Your task to perform on an android device: turn smart compose on in the gmail app Image 0: 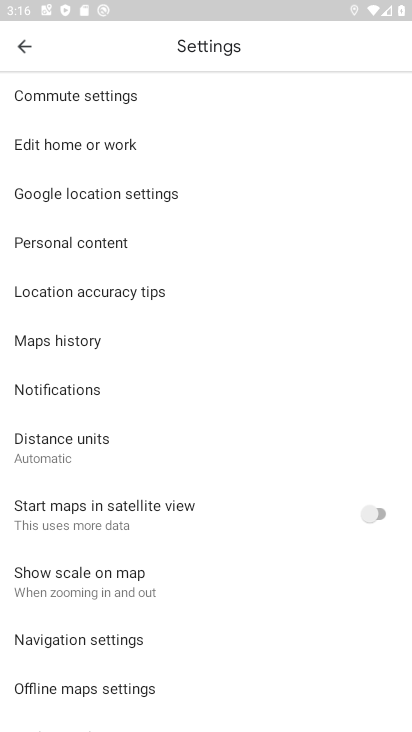
Step 0: press home button
Your task to perform on an android device: turn smart compose on in the gmail app Image 1: 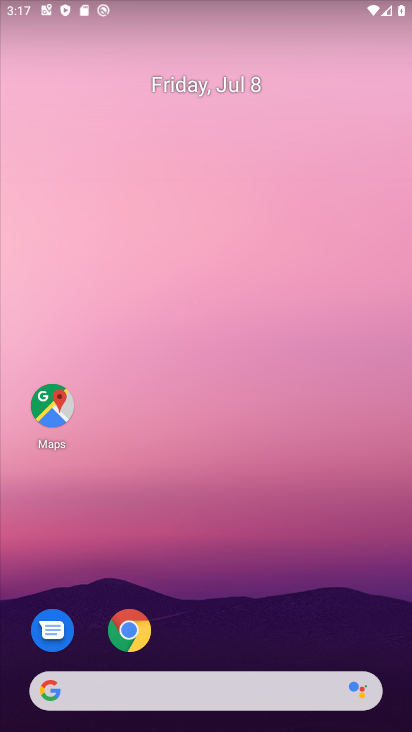
Step 1: drag from (239, 609) to (222, 191)
Your task to perform on an android device: turn smart compose on in the gmail app Image 2: 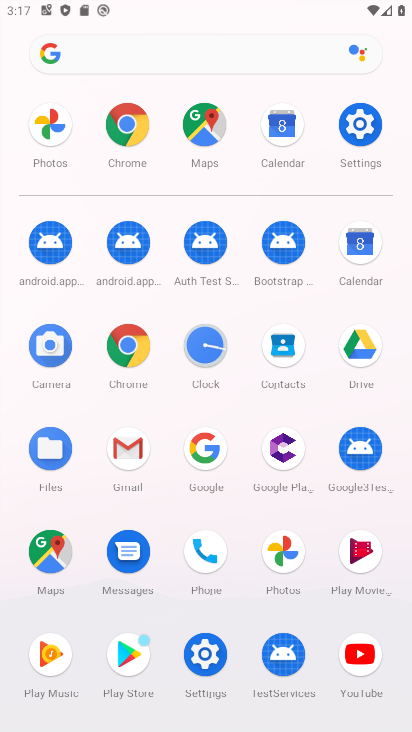
Step 2: click (134, 445)
Your task to perform on an android device: turn smart compose on in the gmail app Image 3: 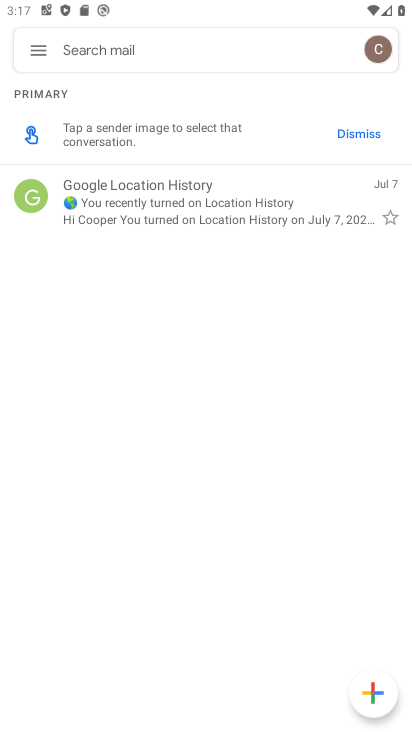
Step 3: click (42, 55)
Your task to perform on an android device: turn smart compose on in the gmail app Image 4: 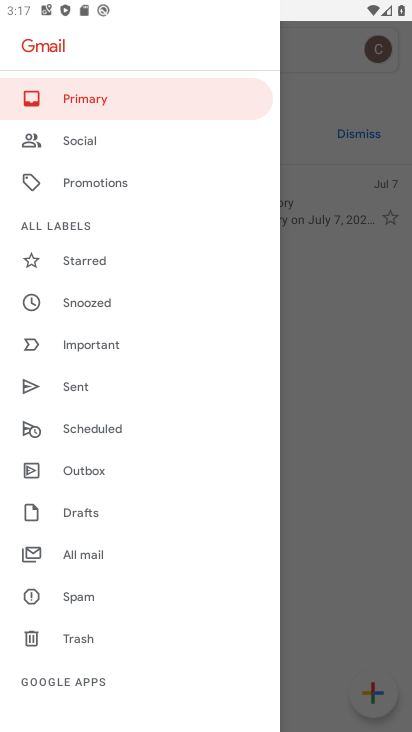
Step 4: drag from (107, 668) to (89, 464)
Your task to perform on an android device: turn smart compose on in the gmail app Image 5: 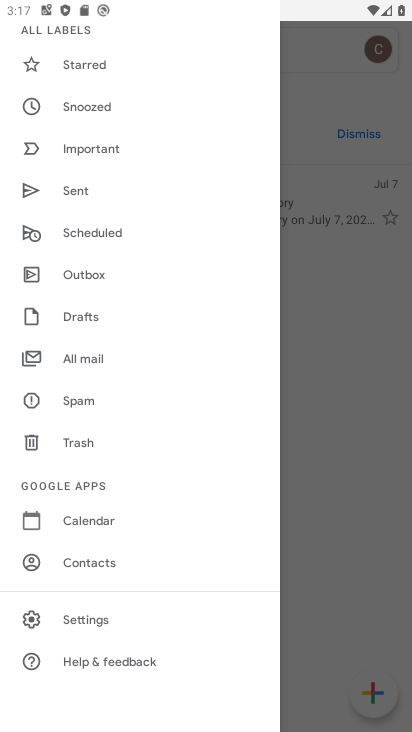
Step 5: click (75, 625)
Your task to perform on an android device: turn smart compose on in the gmail app Image 6: 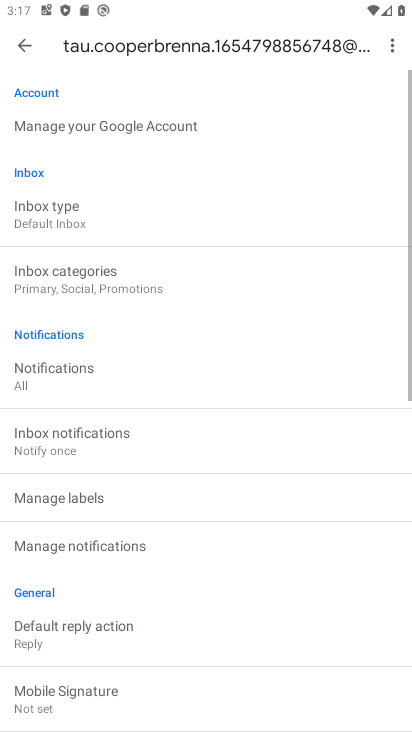
Step 6: drag from (108, 579) to (103, 392)
Your task to perform on an android device: turn smart compose on in the gmail app Image 7: 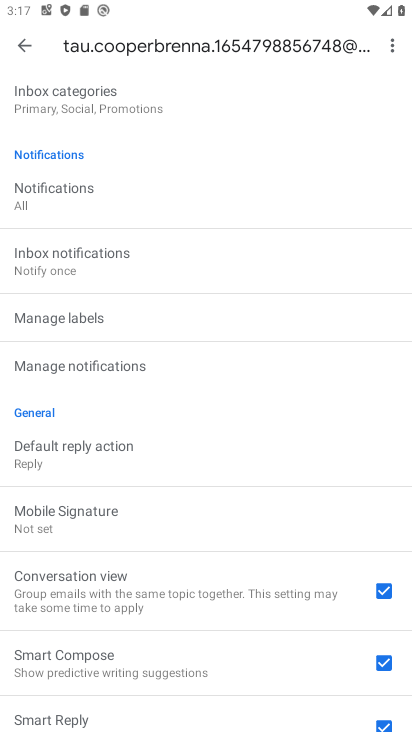
Step 7: click (379, 662)
Your task to perform on an android device: turn smart compose on in the gmail app Image 8: 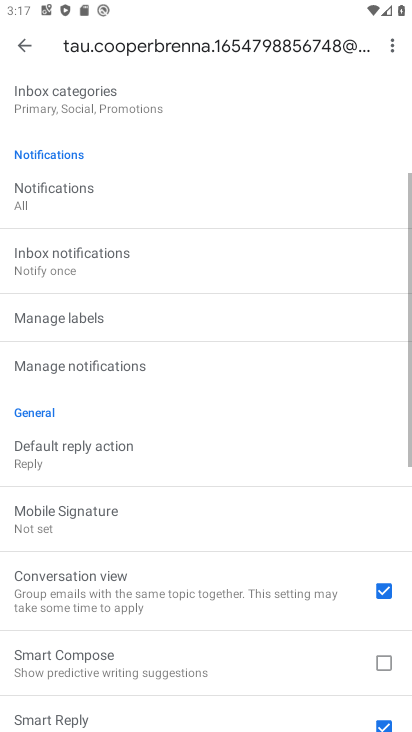
Step 8: task complete